Your task to perform on an android device: see tabs open on other devices in the chrome app Image 0: 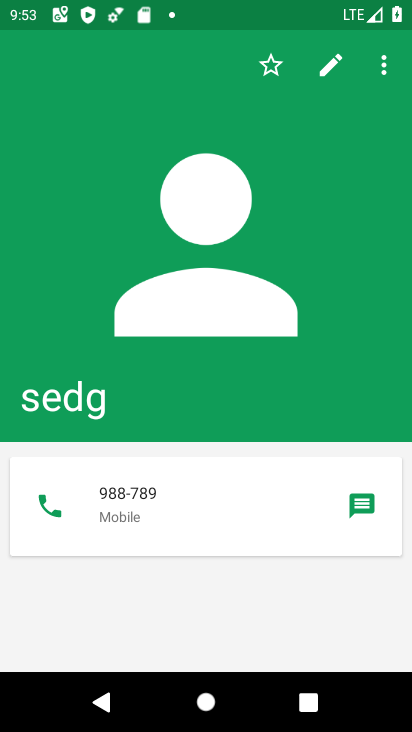
Step 0: press home button
Your task to perform on an android device: see tabs open on other devices in the chrome app Image 1: 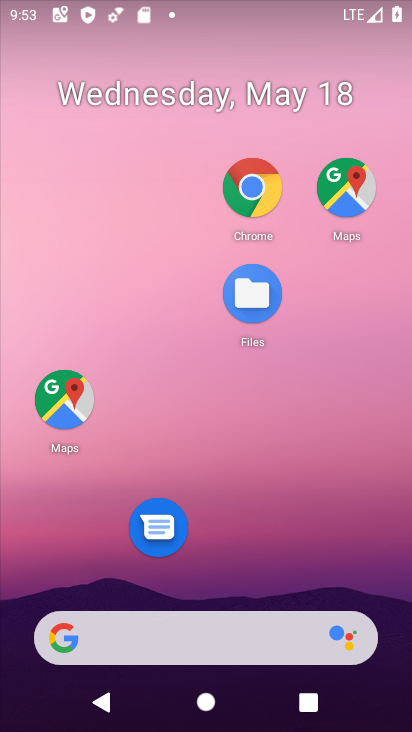
Step 1: click (244, 193)
Your task to perform on an android device: see tabs open on other devices in the chrome app Image 2: 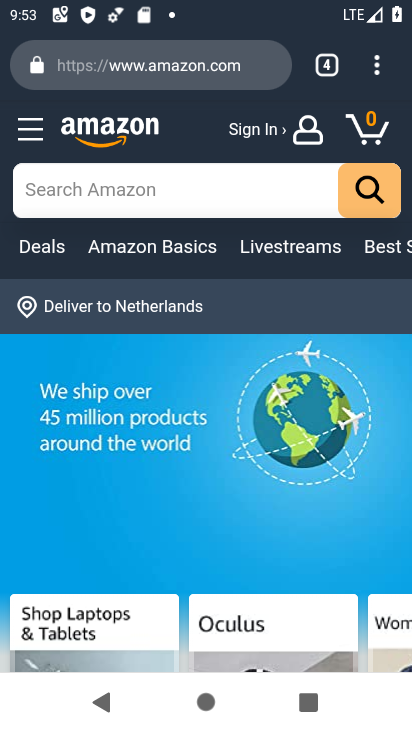
Step 2: click (376, 59)
Your task to perform on an android device: see tabs open on other devices in the chrome app Image 3: 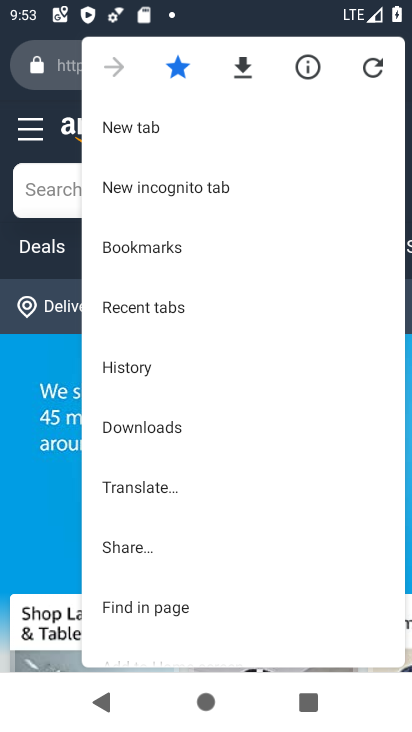
Step 3: drag from (227, 527) to (295, 184)
Your task to perform on an android device: see tabs open on other devices in the chrome app Image 4: 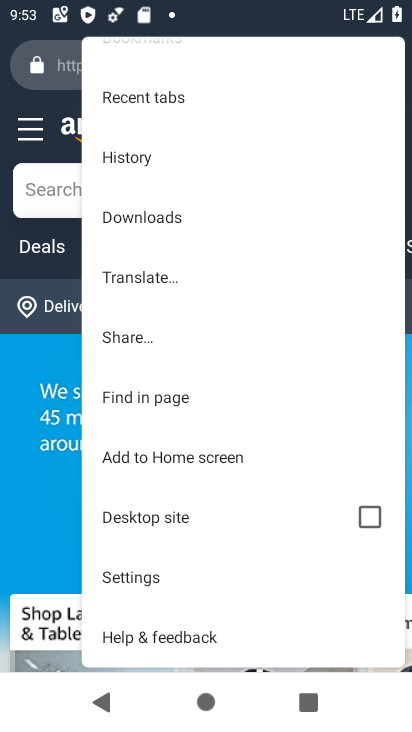
Step 4: click (140, 580)
Your task to perform on an android device: see tabs open on other devices in the chrome app Image 5: 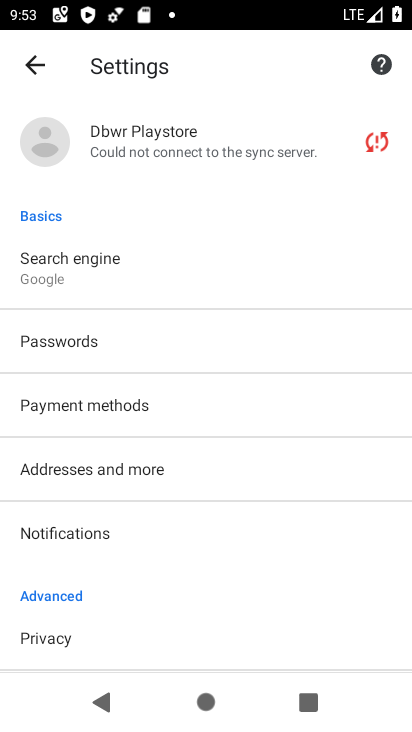
Step 5: drag from (134, 560) to (160, 304)
Your task to perform on an android device: see tabs open on other devices in the chrome app Image 6: 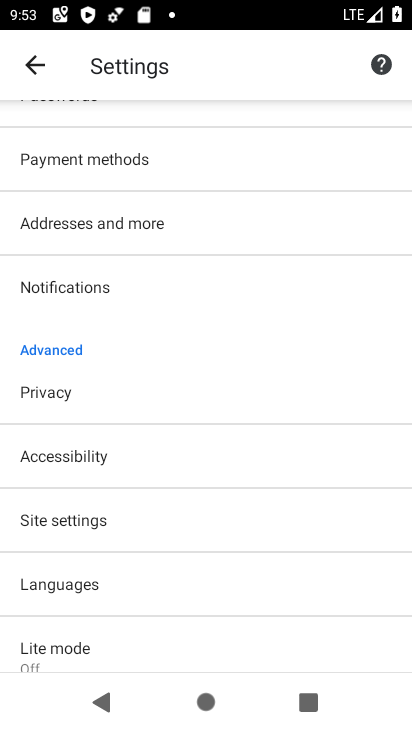
Step 6: drag from (67, 559) to (98, 210)
Your task to perform on an android device: see tabs open on other devices in the chrome app Image 7: 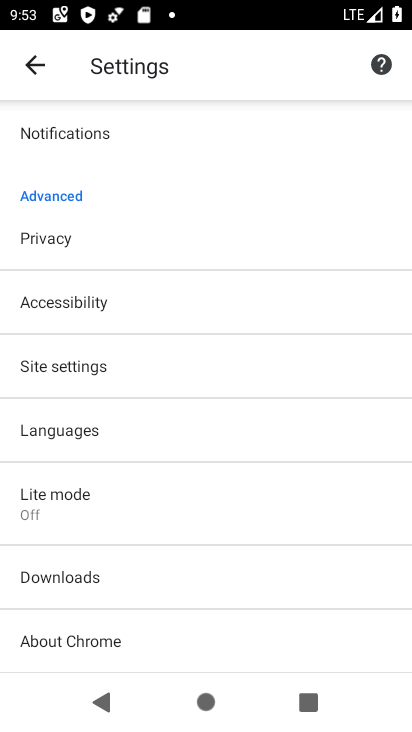
Step 7: drag from (137, 601) to (153, 332)
Your task to perform on an android device: see tabs open on other devices in the chrome app Image 8: 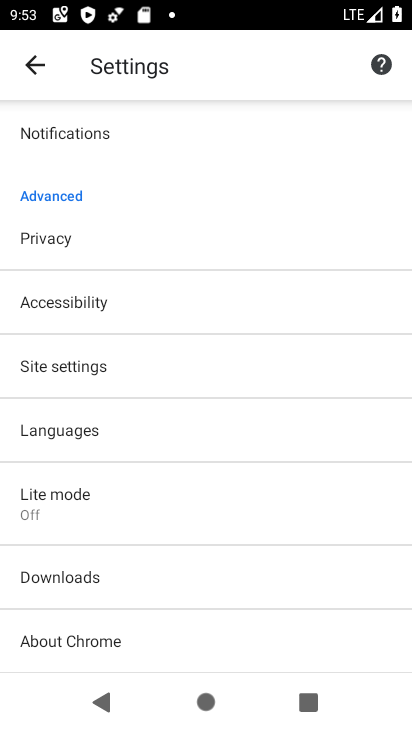
Step 8: click (75, 248)
Your task to perform on an android device: see tabs open on other devices in the chrome app Image 9: 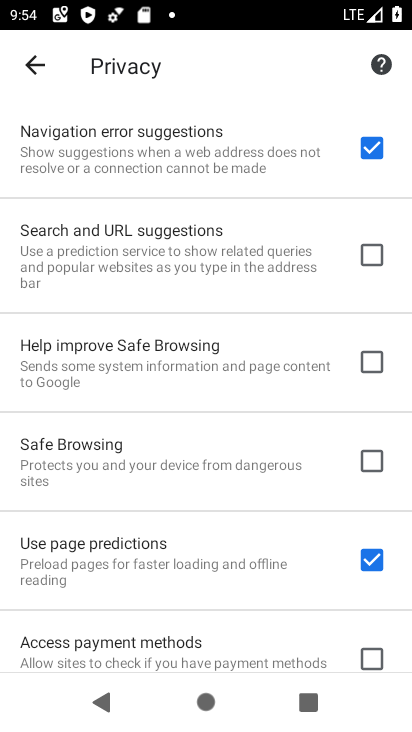
Step 9: drag from (134, 472) to (103, 223)
Your task to perform on an android device: see tabs open on other devices in the chrome app Image 10: 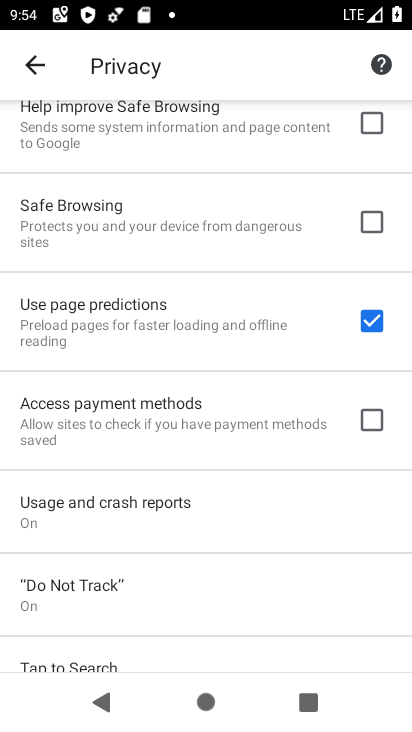
Step 10: drag from (130, 588) to (133, 334)
Your task to perform on an android device: see tabs open on other devices in the chrome app Image 11: 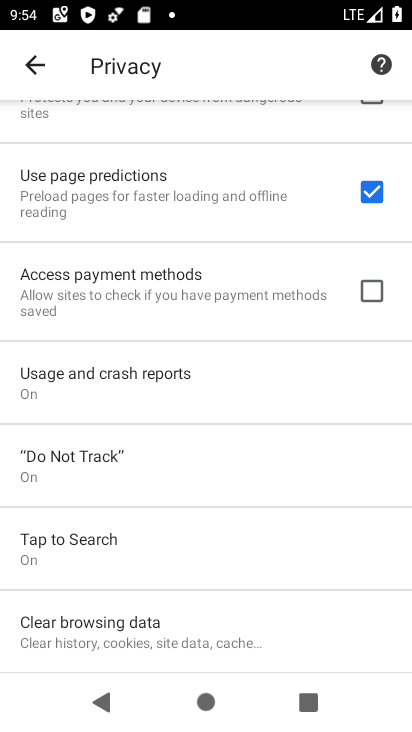
Step 11: drag from (142, 585) to (147, 416)
Your task to perform on an android device: see tabs open on other devices in the chrome app Image 12: 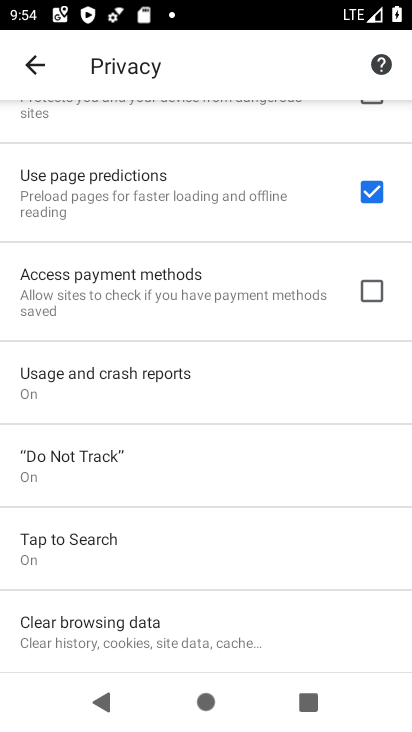
Step 12: press back button
Your task to perform on an android device: see tabs open on other devices in the chrome app Image 13: 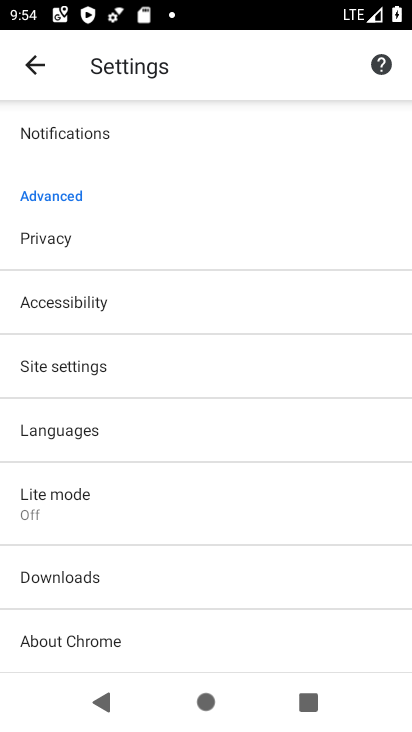
Step 13: press back button
Your task to perform on an android device: see tabs open on other devices in the chrome app Image 14: 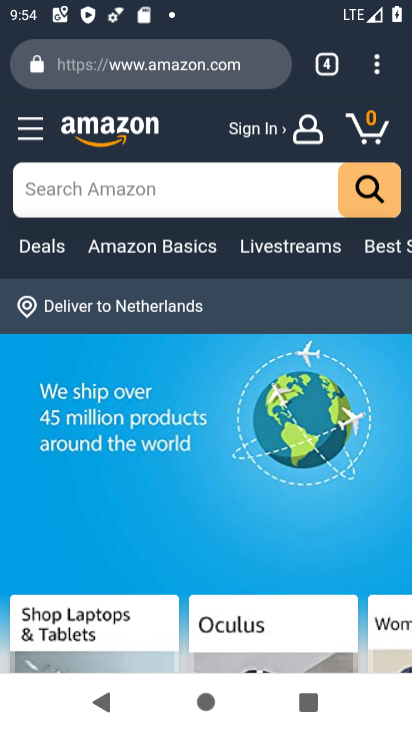
Step 14: press back button
Your task to perform on an android device: see tabs open on other devices in the chrome app Image 15: 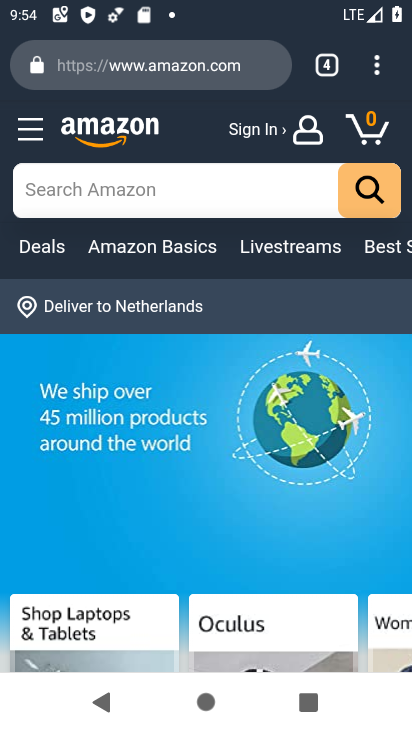
Step 15: press back button
Your task to perform on an android device: see tabs open on other devices in the chrome app Image 16: 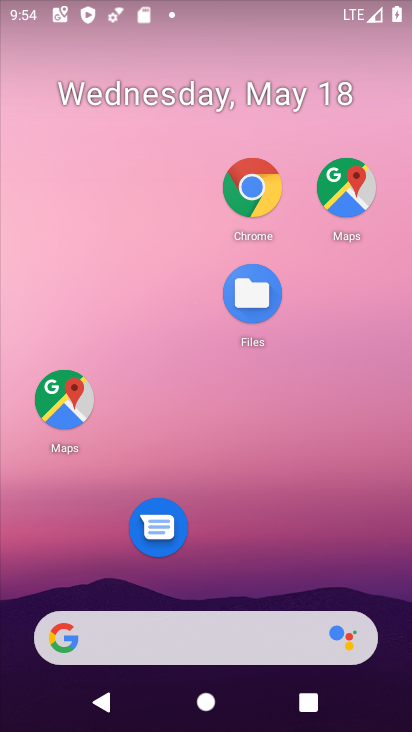
Step 16: click (248, 179)
Your task to perform on an android device: see tabs open on other devices in the chrome app Image 17: 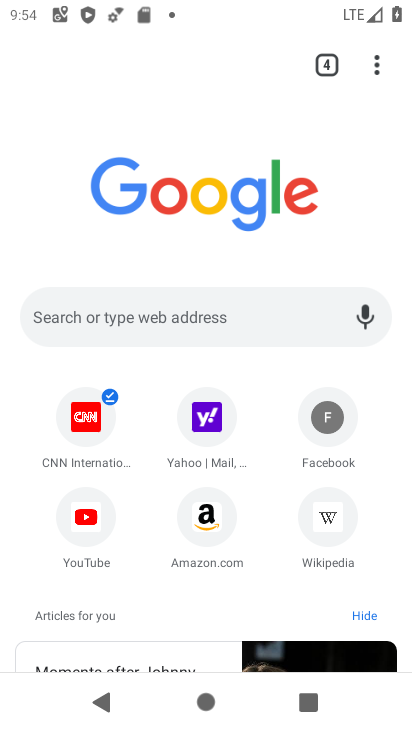
Step 17: click (385, 56)
Your task to perform on an android device: see tabs open on other devices in the chrome app Image 18: 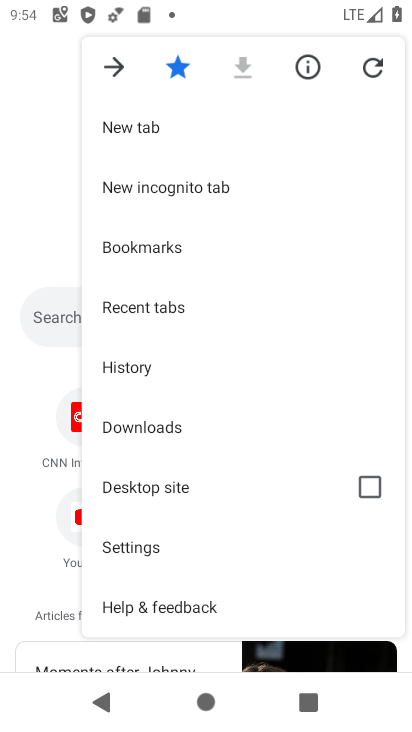
Step 18: click (385, 56)
Your task to perform on an android device: see tabs open on other devices in the chrome app Image 19: 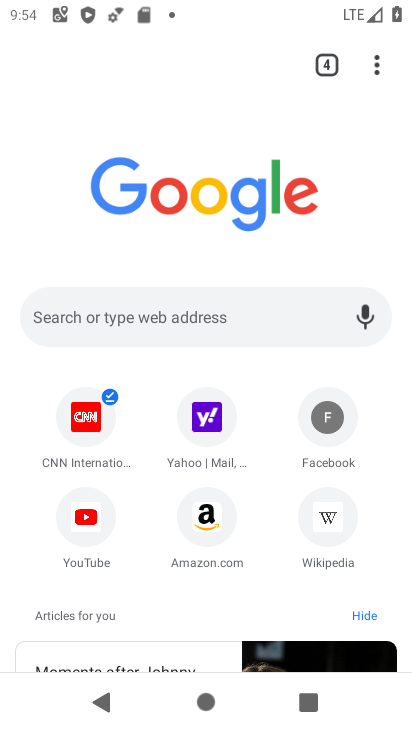
Step 19: click (373, 68)
Your task to perform on an android device: see tabs open on other devices in the chrome app Image 20: 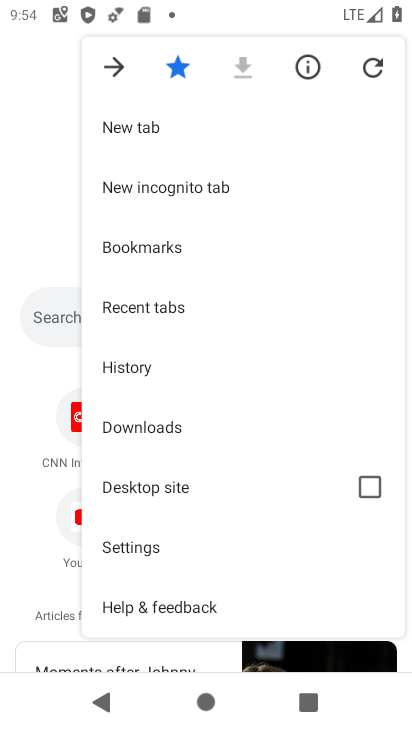
Step 20: click (146, 306)
Your task to perform on an android device: see tabs open on other devices in the chrome app Image 21: 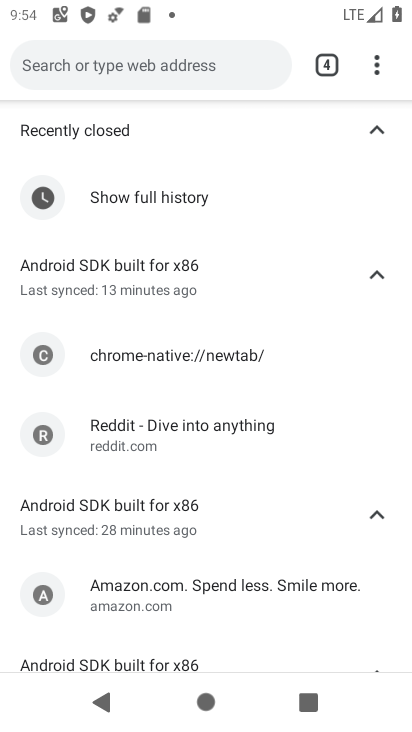
Step 21: task complete